Your task to perform on an android device: What's on my calendar today? Image 0: 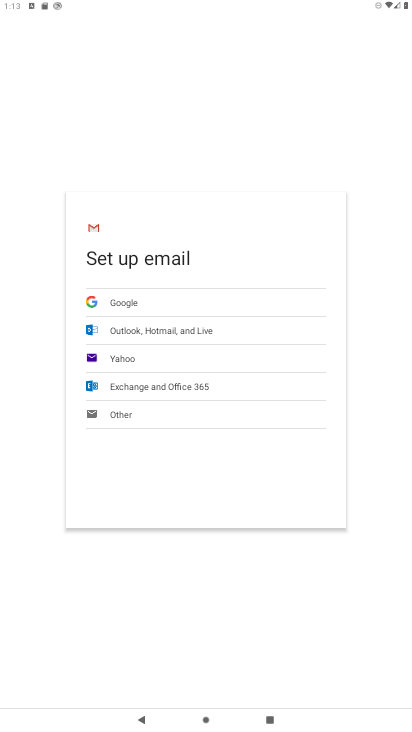
Step 0: press home button
Your task to perform on an android device: What's on my calendar today? Image 1: 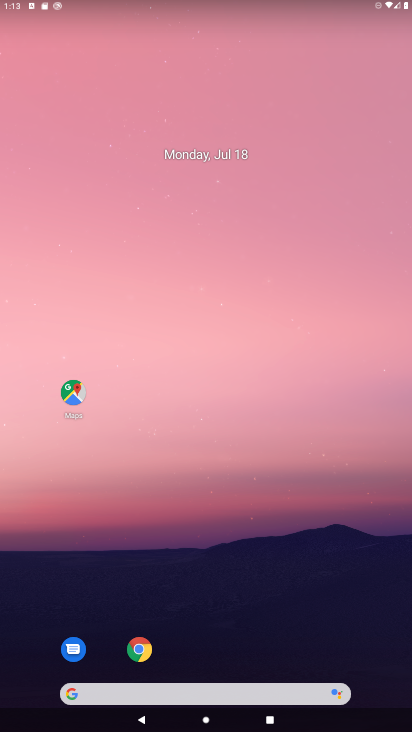
Step 1: drag from (383, 650) to (319, 89)
Your task to perform on an android device: What's on my calendar today? Image 2: 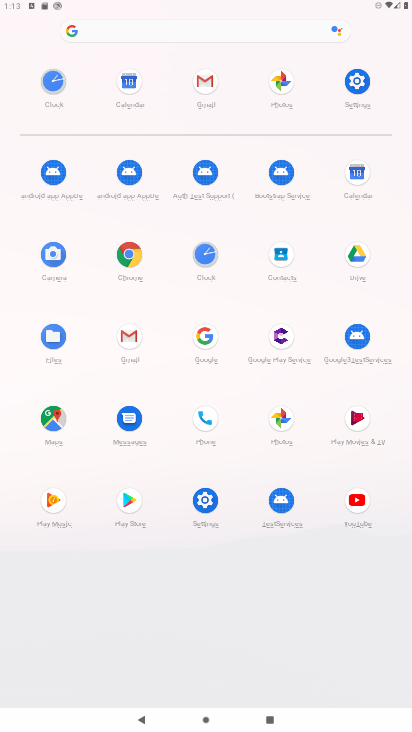
Step 2: click (278, 256)
Your task to perform on an android device: What's on my calendar today? Image 3: 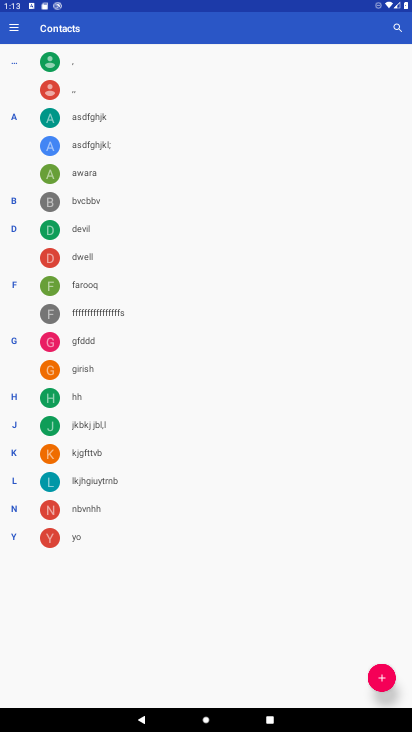
Step 3: press home button
Your task to perform on an android device: What's on my calendar today? Image 4: 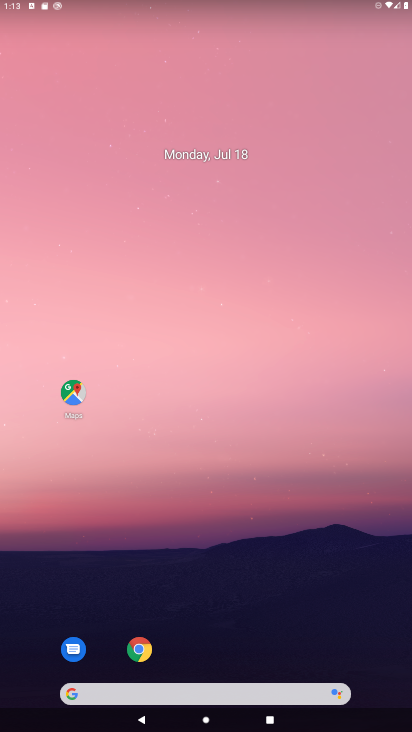
Step 4: drag from (343, 637) to (321, 86)
Your task to perform on an android device: What's on my calendar today? Image 5: 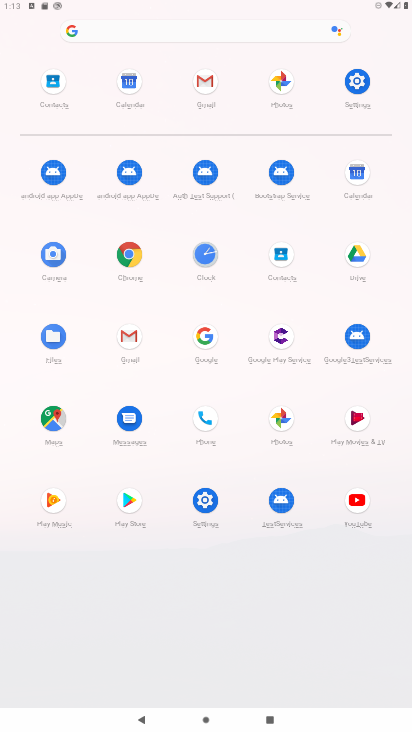
Step 5: click (357, 173)
Your task to perform on an android device: What's on my calendar today? Image 6: 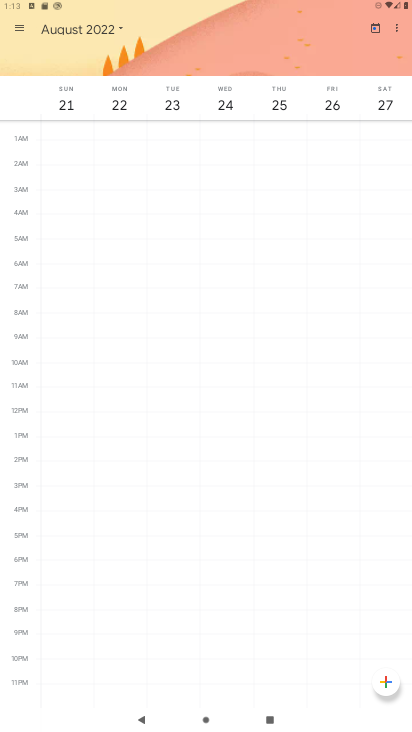
Step 6: click (18, 27)
Your task to perform on an android device: What's on my calendar today? Image 7: 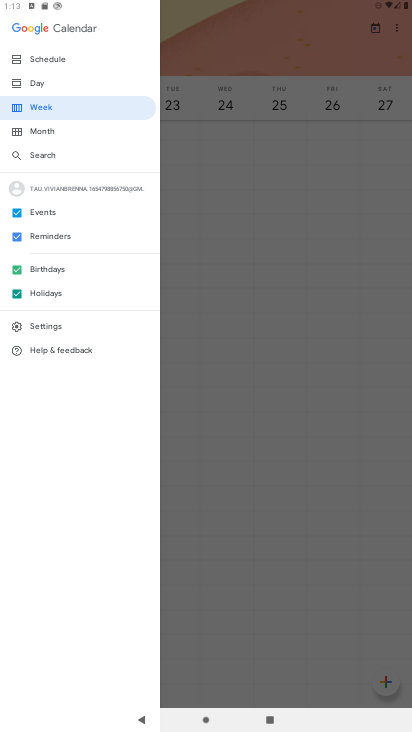
Step 7: click (32, 81)
Your task to perform on an android device: What's on my calendar today? Image 8: 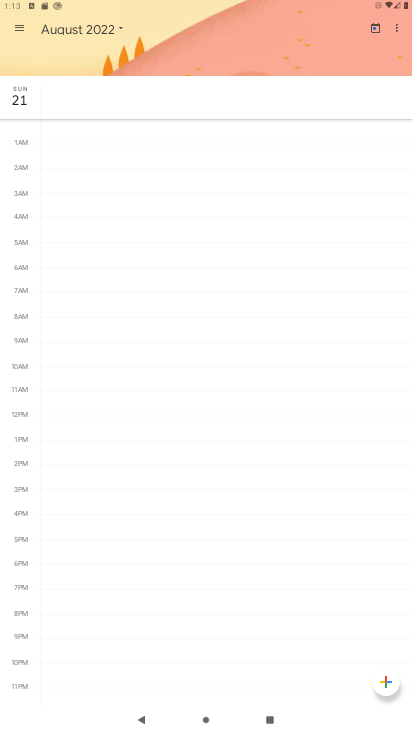
Step 8: click (120, 31)
Your task to perform on an android device: What's on my calendar today? Image 9: 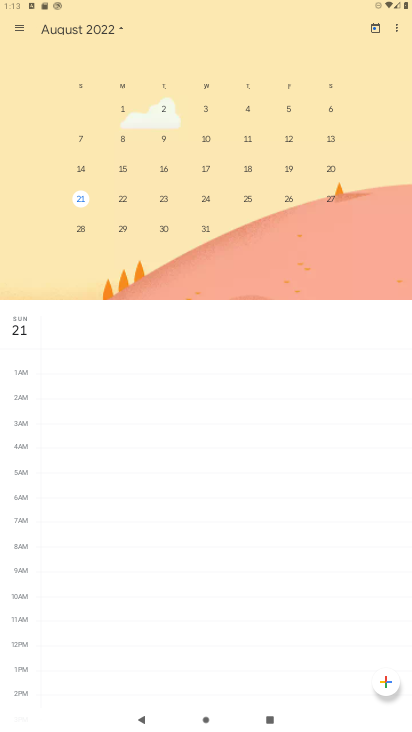
Step 9: drag from (77, 229) to (380, 228)
Your task to perform on an android device: What's on my calendar today? Image 10: 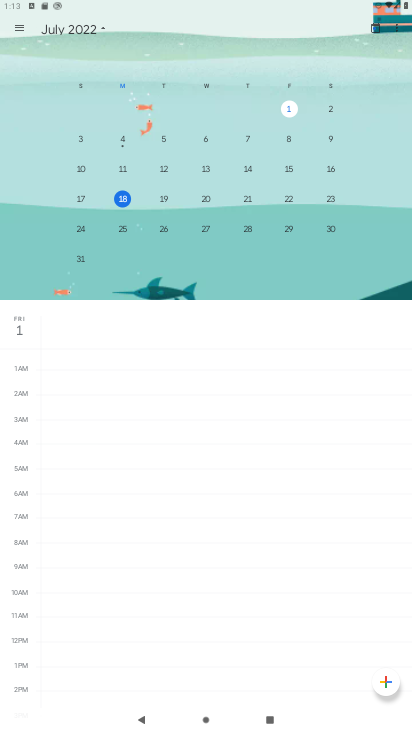
Step 10: click (124, 201)
Your task to perform on an android device: What's on my calendar today? Image 11: 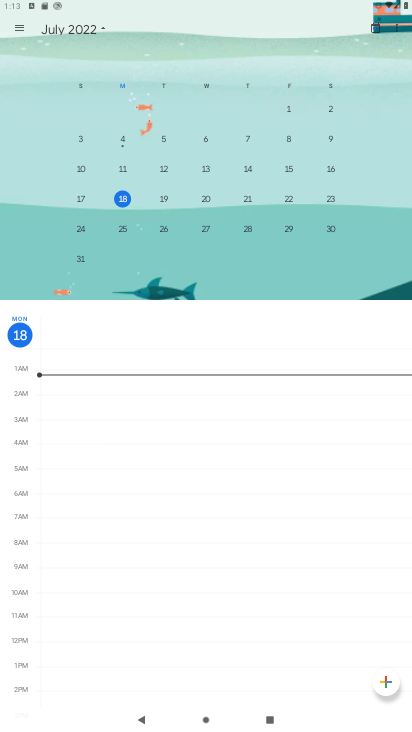
Step 11: task complete